Your task to perform on an android device: Show me popular games on the Play Store Image 0: 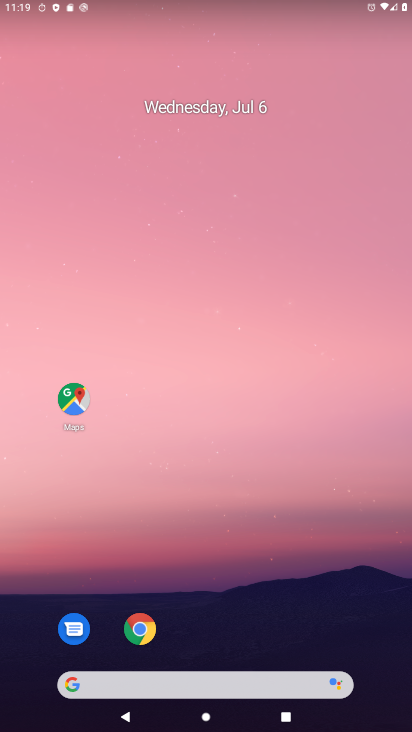
Step 0: drag from (204, 603) to (194, 141)
Your task to perform on an android device: Show me popular games on the Play Store Image 1: 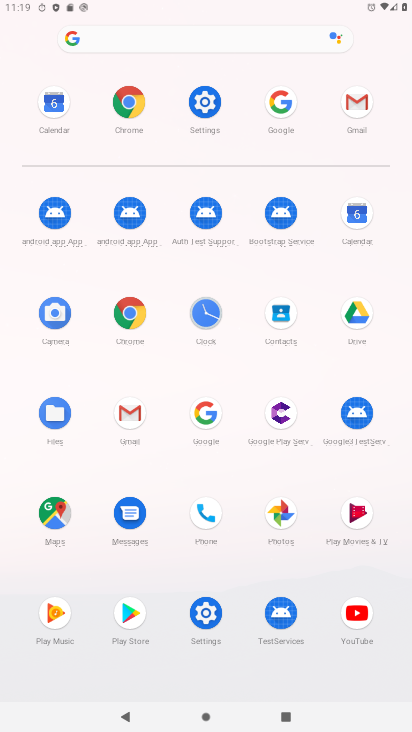
Step 1: click (132, 619)
Your task to perform on an android device: Show me popular games on the Play Store Image 2: 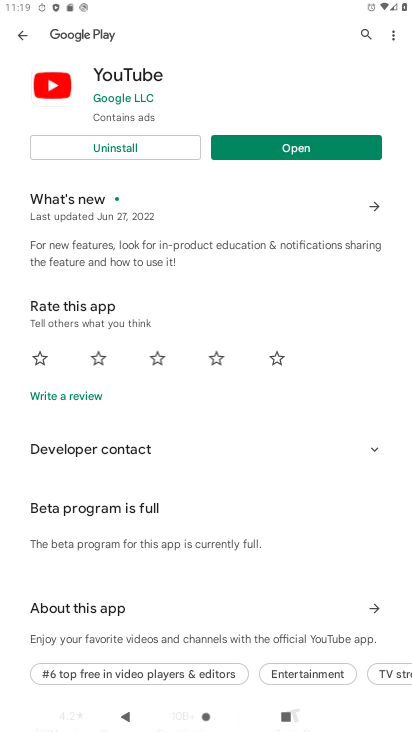
Step 2: press back button
Your task to perform on an android device: Show me popular games on the Play Store Image 3: 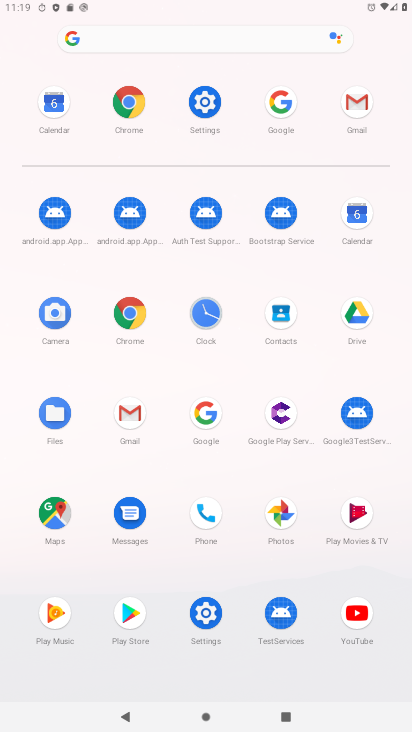
Step 3: click (132, 607)
Your task to perform on an android device: Show me popular games on the Play Store Image 4: 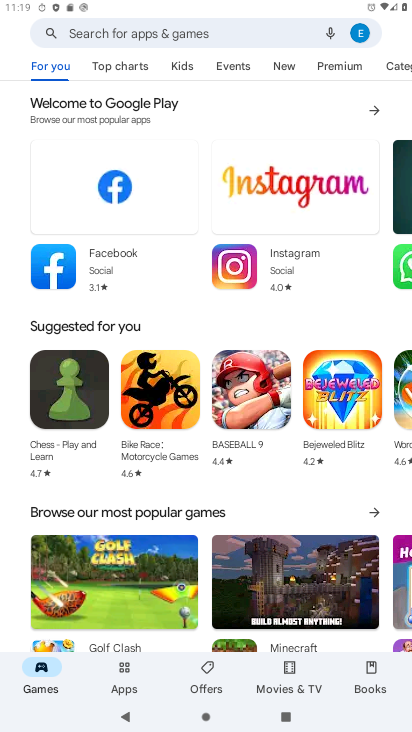
Step 4: drag from (171, 574) to (174, 338)
Your task to perform on an android device: Show me popular games on the Play Store Image 5: 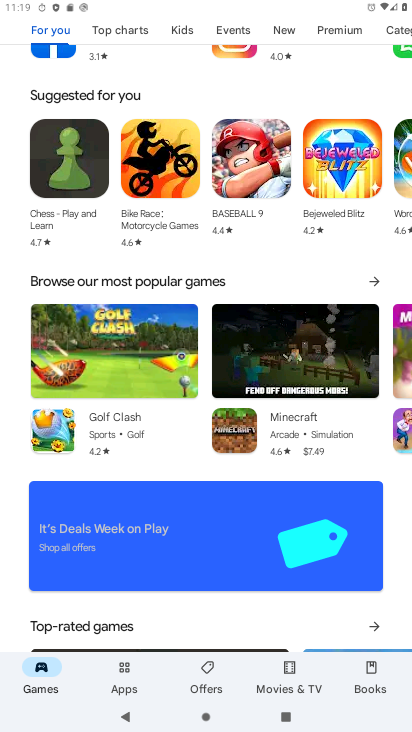
Step 5: click (369, 279)
Your task to perform on an android device: Show me popular games on the Play Store Image 6: 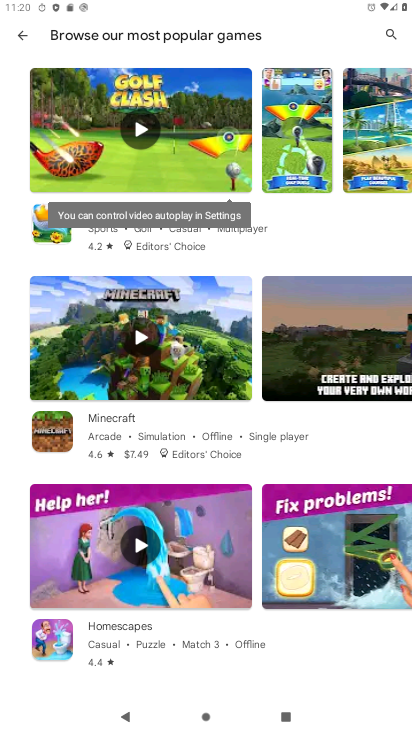
Step 6: task complete